Your task to perform on an android device: turn pop-ups on in chrome Image 0: 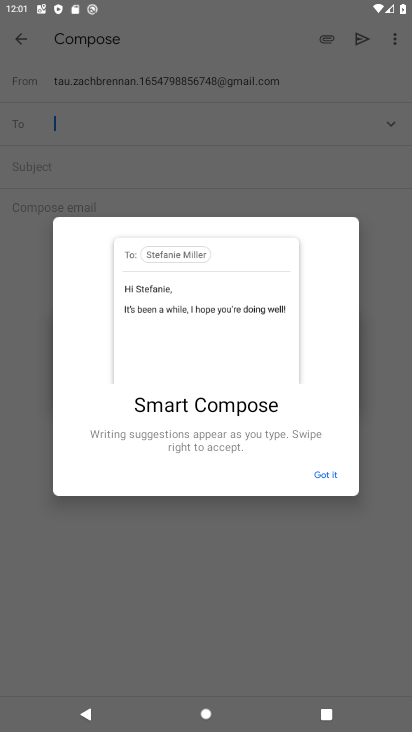
Step 0: press home button
Your task to perform on an android device: turn pop-ups on in chrome Image 1: 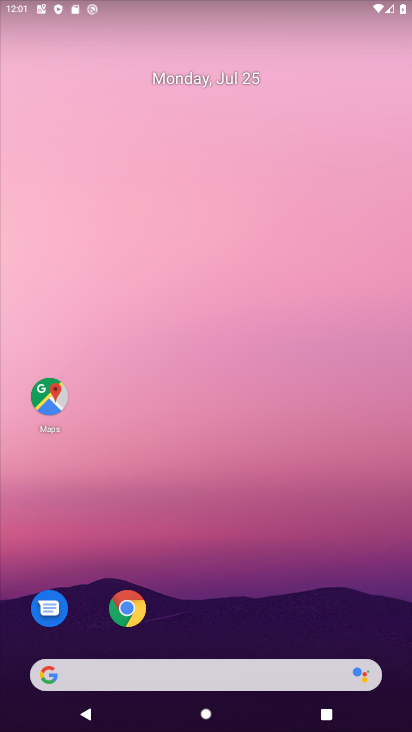
Step 1: click (133, 607)
Your task to perform on an android device: turn pop-ups on in chrome Image 2: 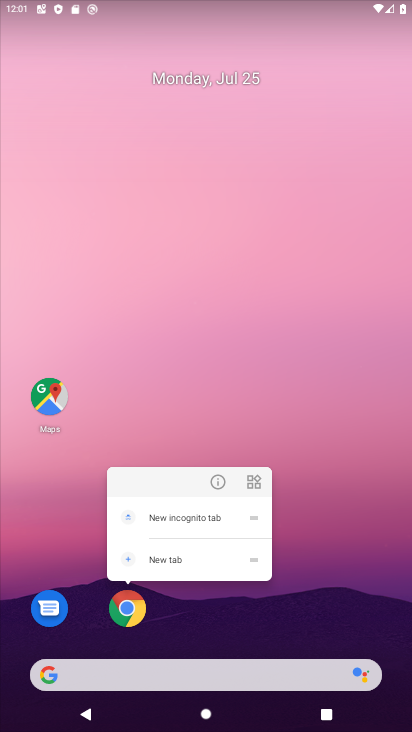
Step 2: click (133, 607)
Your task to perform on an android device: turn pop-ups on in chrome Image 3: 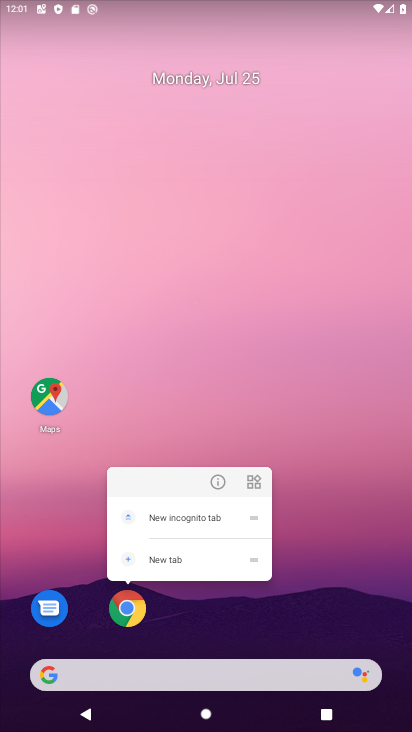
Step 3: click (133, 607)
Your task to perform on an android device: turn pop-ups on in chrome Image 4: 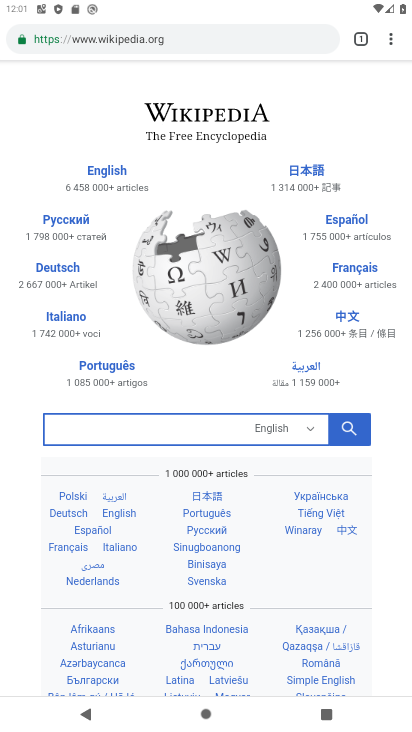
Step 4: drag from (399, 35) to (254, 455)
Your task to perform on an android device: turn pop-ups on in chrome Image 5: 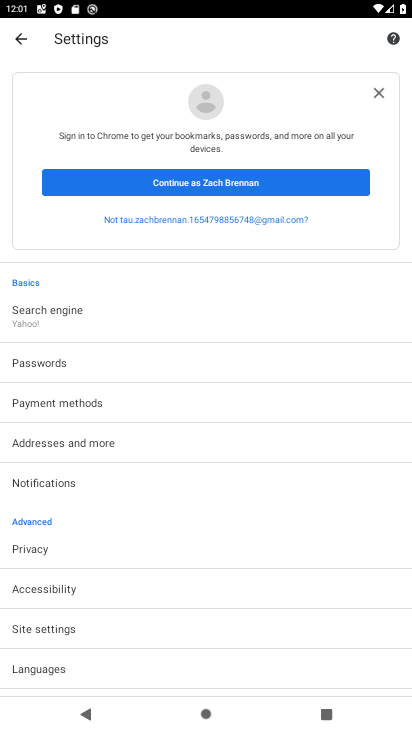
Step 5: click (15, 622)
Your task to perform on an android device: turn pop-ups on in chrome Image 6: 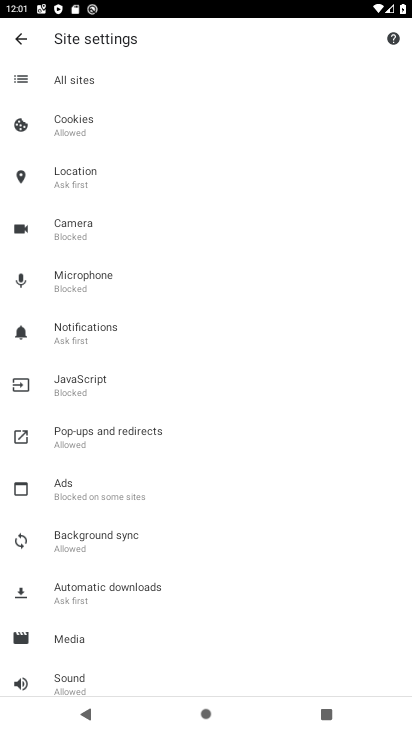
Step 6: click (114, 437)
Your task to perform on an android device: turn pop-ups on in chrome Image 7: 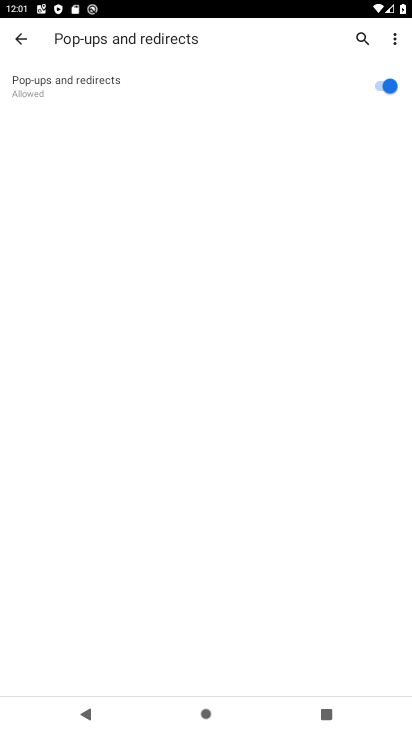
Step 7: task complete